Your task to perform on an android device: Toggle the flashlight Image 0: 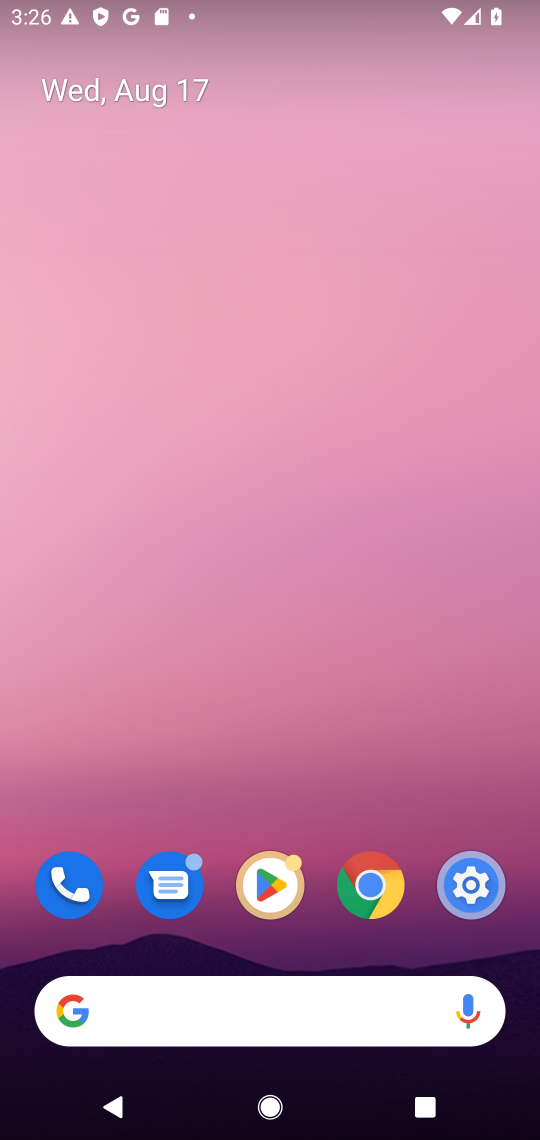
Step 0: click (479, 882)
Your task to perform on an android device: Toggle the flashlight Image 1: 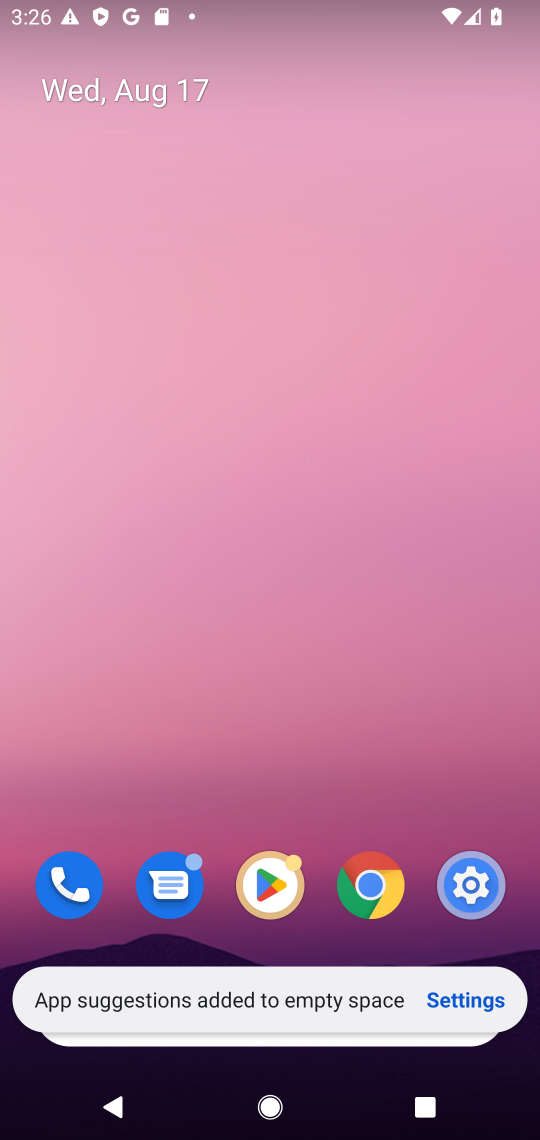
Step 1: click (479, 882)
Your task to perform on an android device: Toggle the flashlight Image 2: 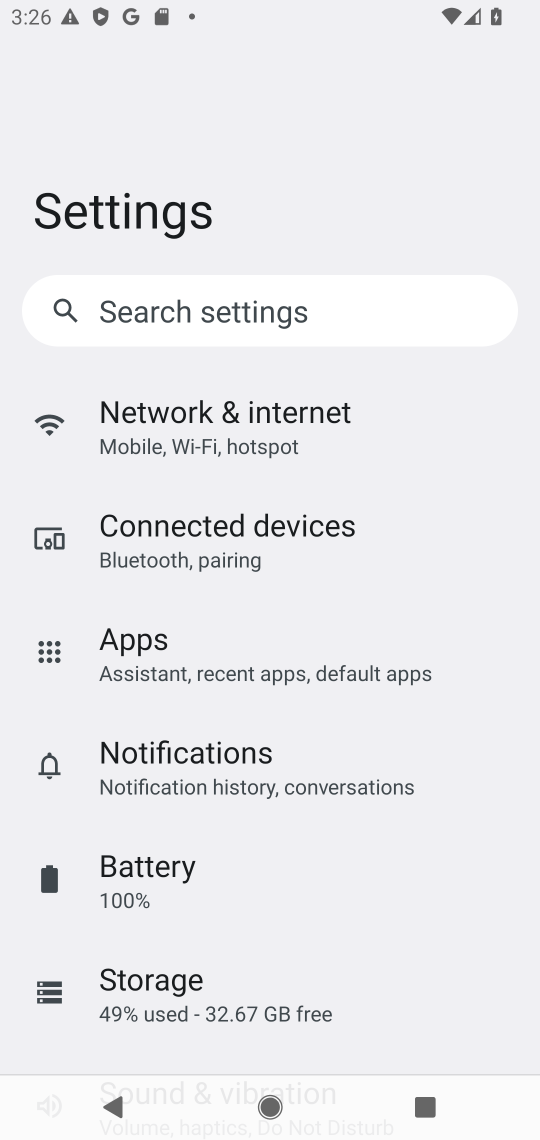
Step 2: drag from (276, 784) to (381, 648)
Your task to perform on an android device: Toggle the flashlight Image 3: 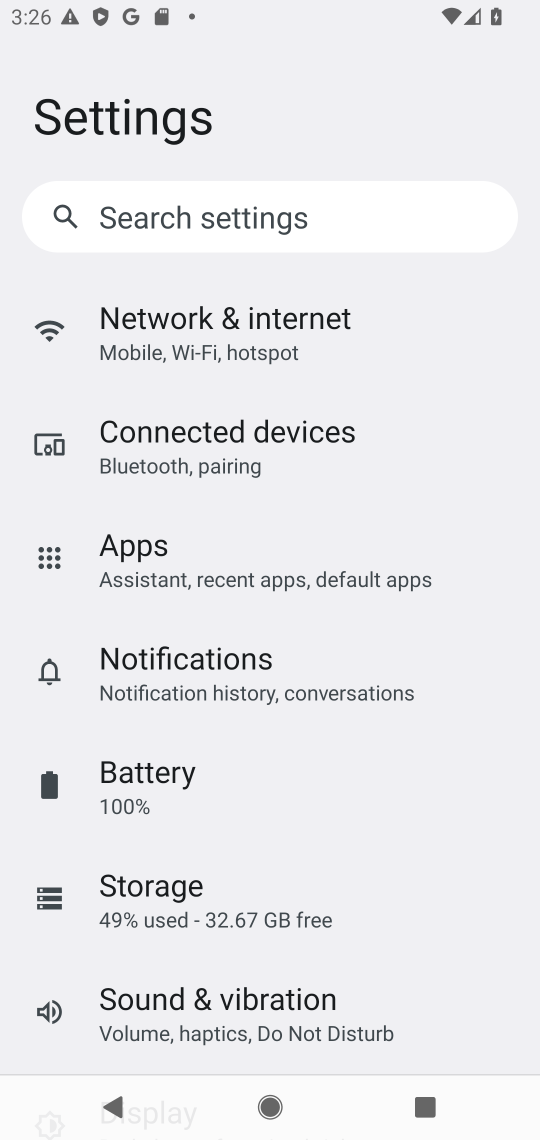
Step 3: drag from (256, 1007) to (352, 822)
Your task to perform on an android device: Toggle the flashlight Image 4: 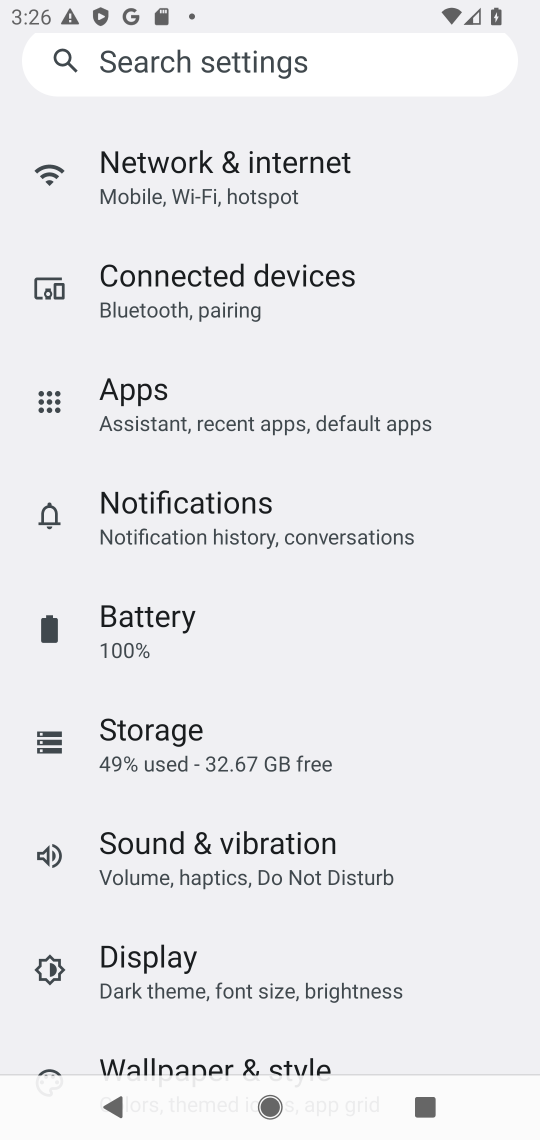
Step 4: click (271, 979)
Your task to perform on an android device: Toggle the flashlight Image 5: 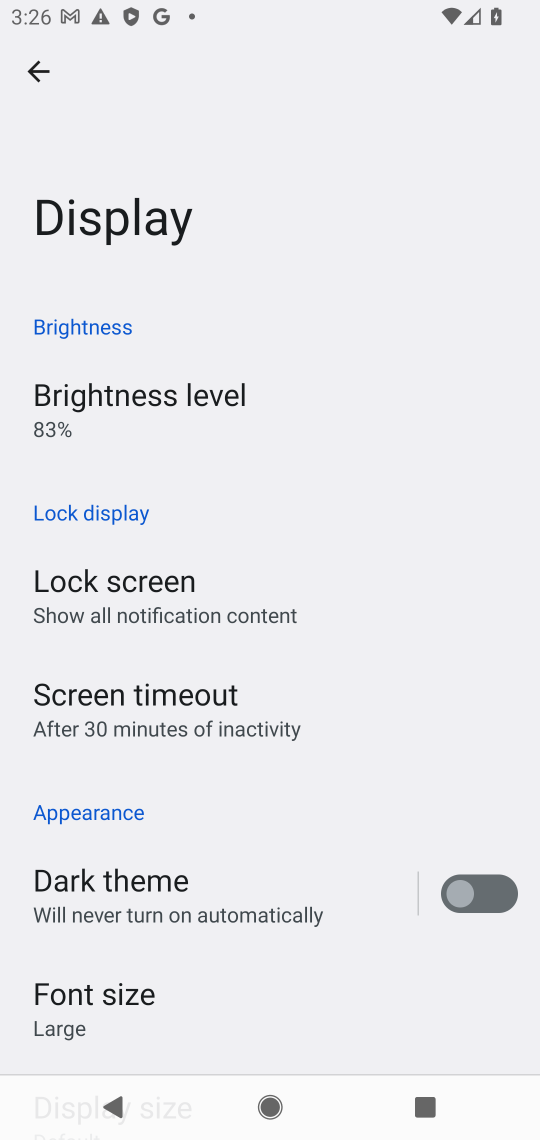
Step 5: press back button
Your task to perform on an android device: Toggle the flashlight Image 6: 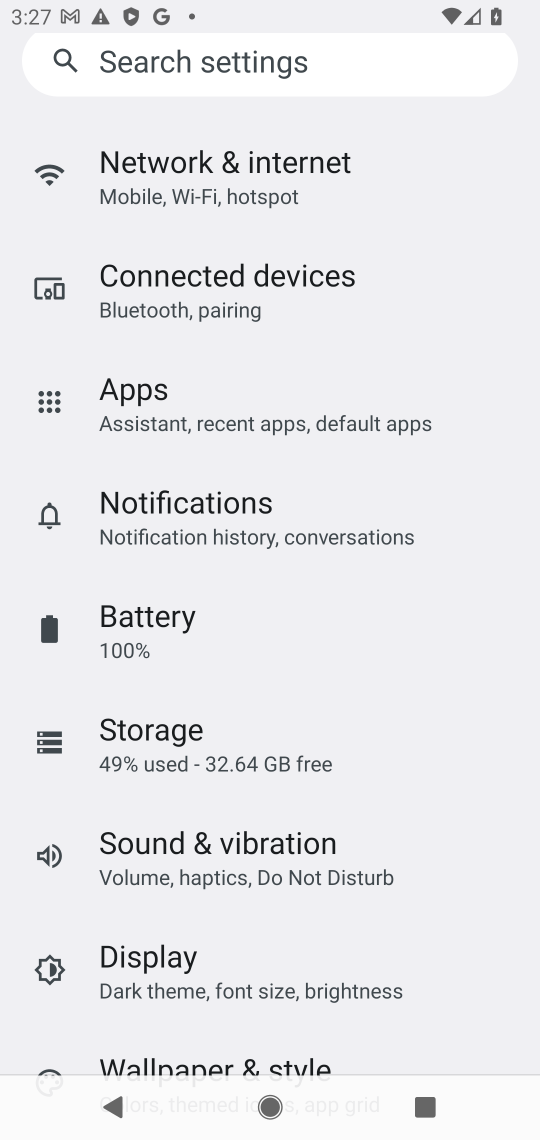
Step 6: click (234, 65)
Your task to perform on an android device: Toggle the flashlight Image 7: 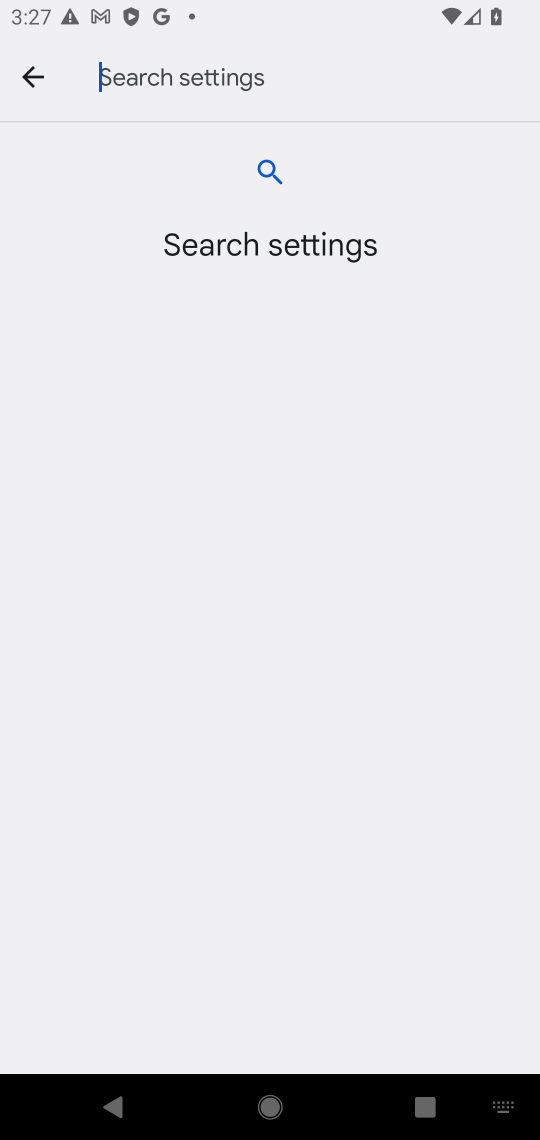
Step 7: type "flashlight"
Your task to perform on an android device: Toggle the flashlight Image 8: 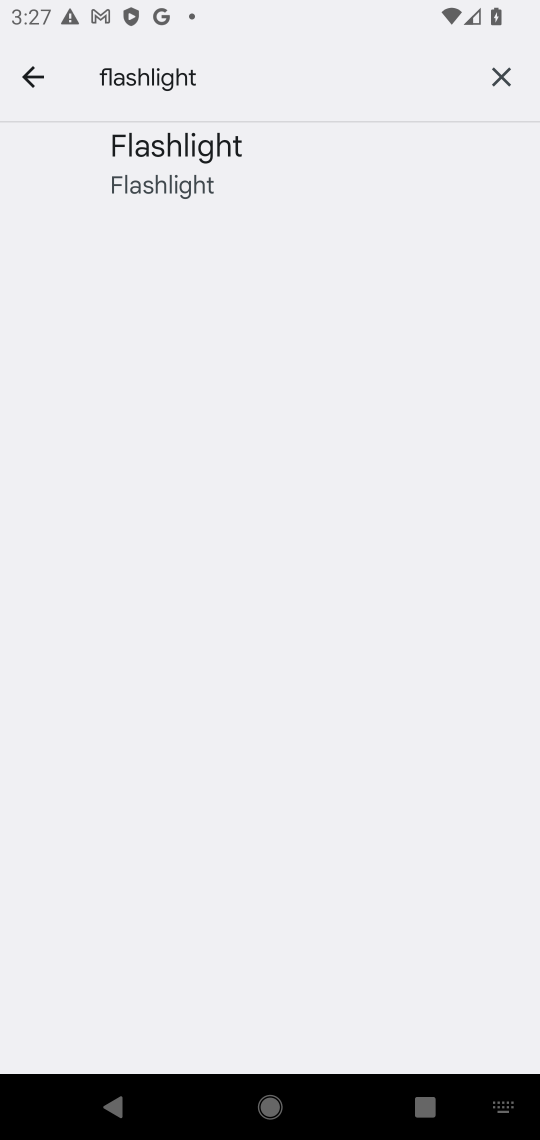
Step 8: click (179, 177)
Your task to perform on an android device: Toggle the flashlight Image 9: 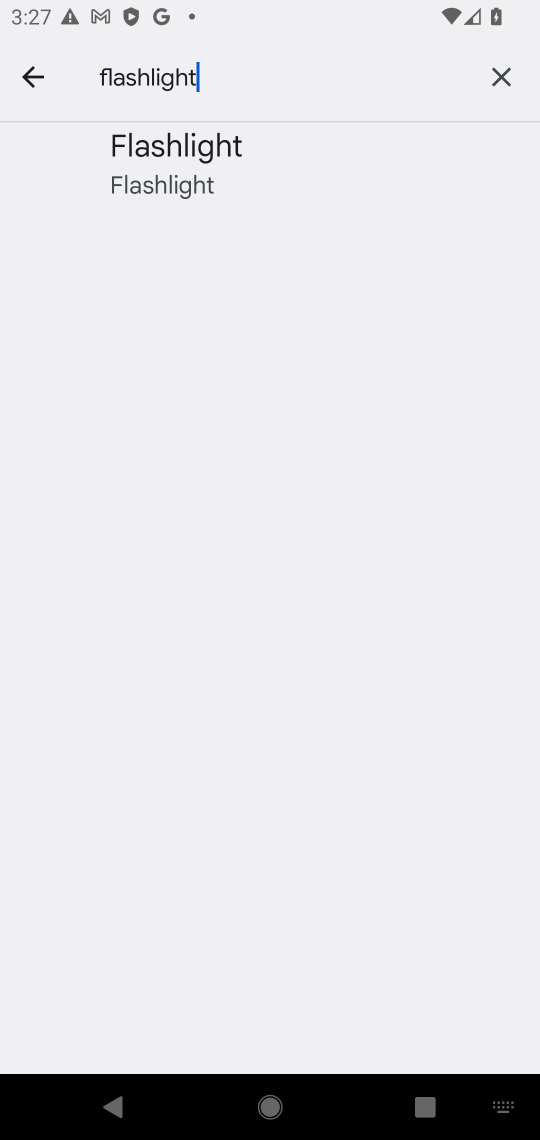
Step 9: task complete